Your task to perform on an android device: Do I have any events tomorrow? Image 0: 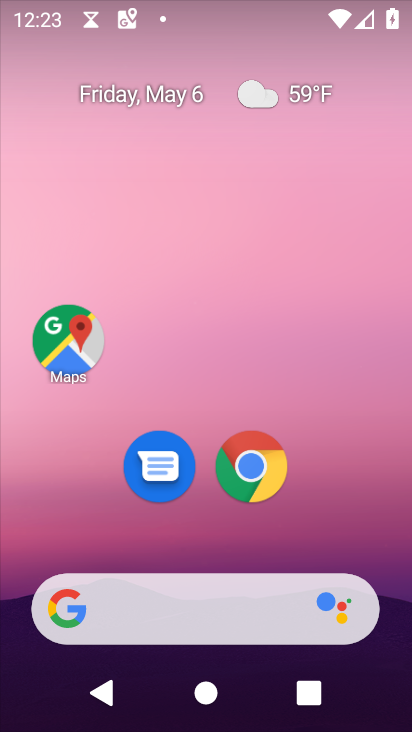
Step 0: drag from (382, 519) to (274, 148)
Your task to perform on an android device: Do I have any events tomorrow? Image 1: 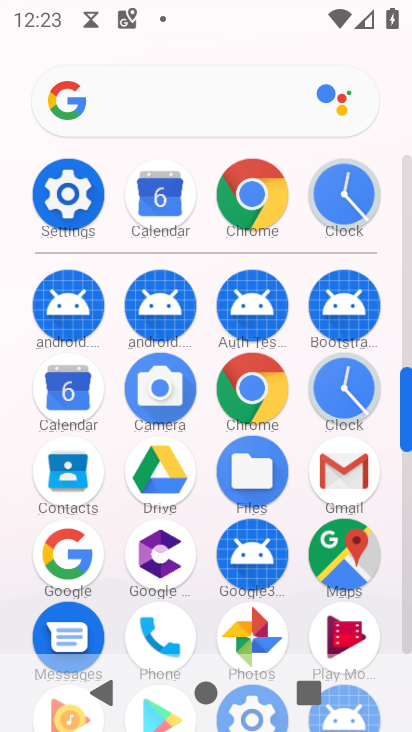
Step 1: click (64, 403)
Your task to perform on an android device: Do I have any events tomorrow? Image 2: 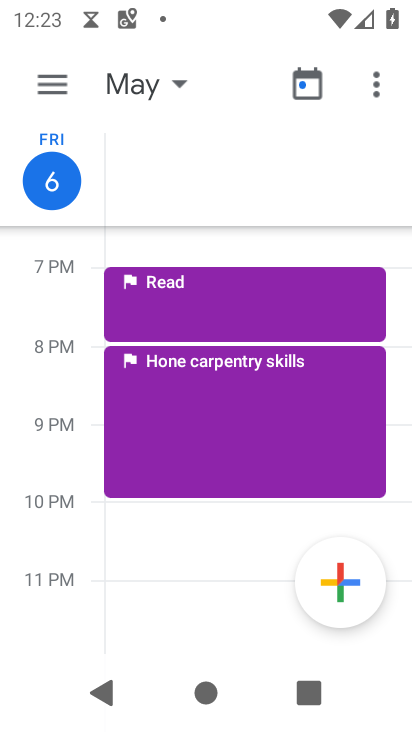
Step 2: click (150, 92)
Your task to perform on an android device: Do I have any events tomorrow? Image 3: 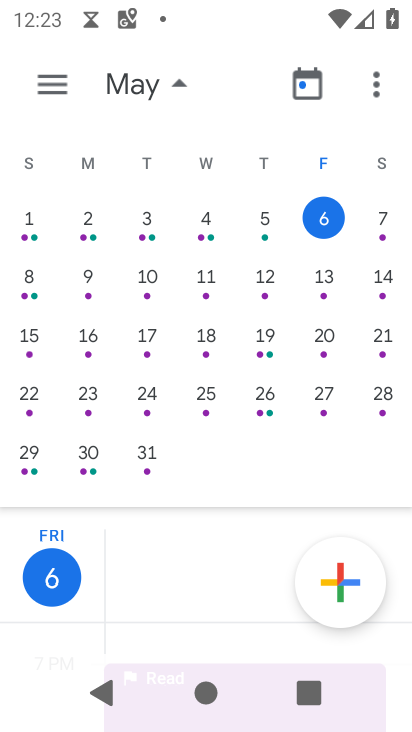
Step 3: click (389, 228)
Your task to perform on an android device: Do I have any events tomorrow? Image 4: 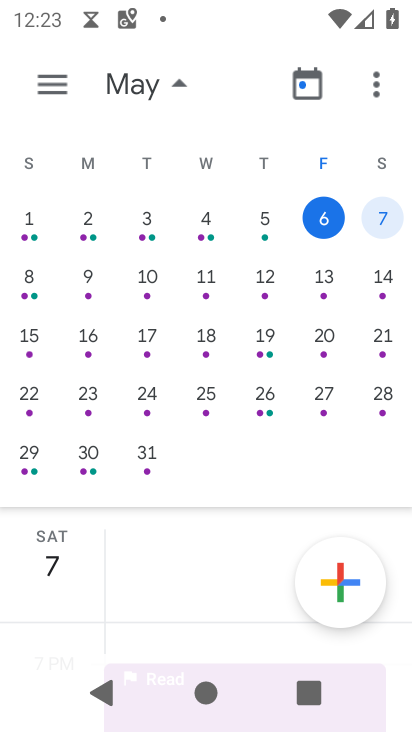
Step 4: click (187, 96)
Your task to perform on an android device: Do I have any events tomorrow? Image 5: 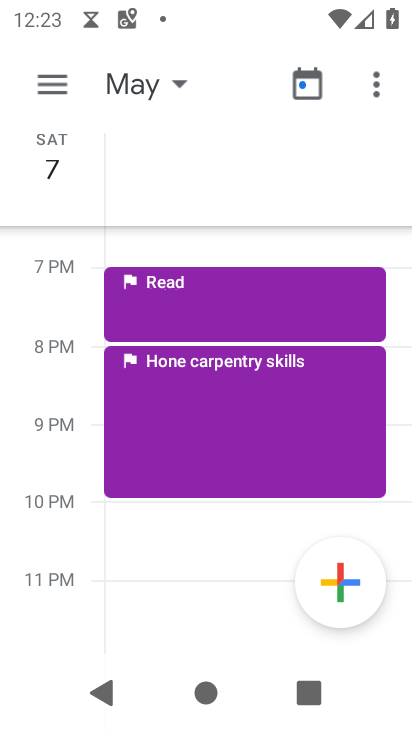
Step 5: task complete